Your task to perform on an android device: toggle notifications settings in the gmail app Image 0: 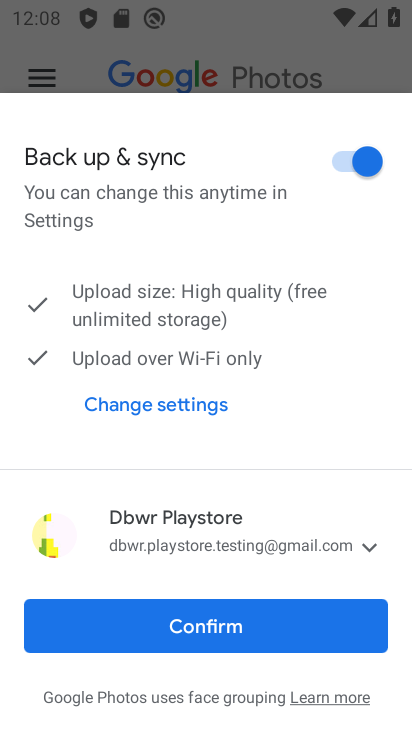
Step 0: press home button
Your task to perform on an android device: toggle notifications settings in the gmail app Image 1: 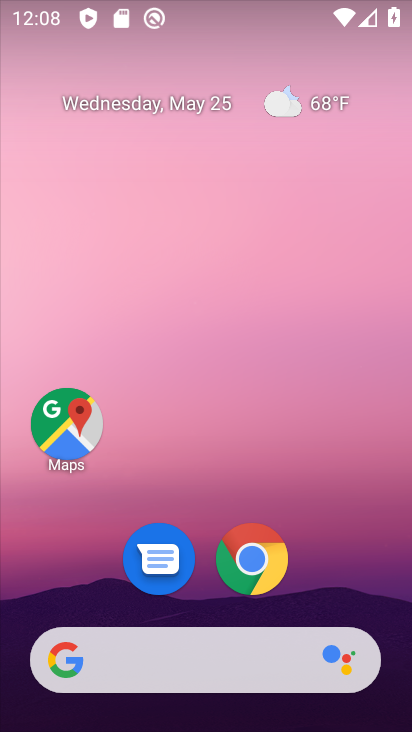
Step 1: drag from (353, 565) to (313, 7)
Your task to perform on an android device: toggle notifications settings in the gmail app Image 2: 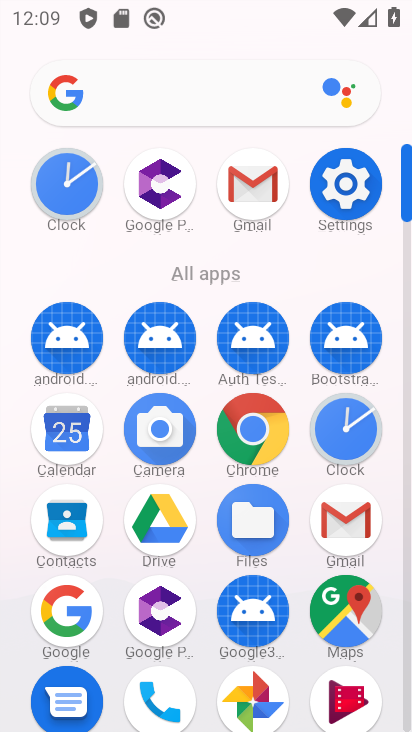
Step 2: click (341, 523)
Your task to perform on an android device: toggle notifications settings in the gmail app Image 3: 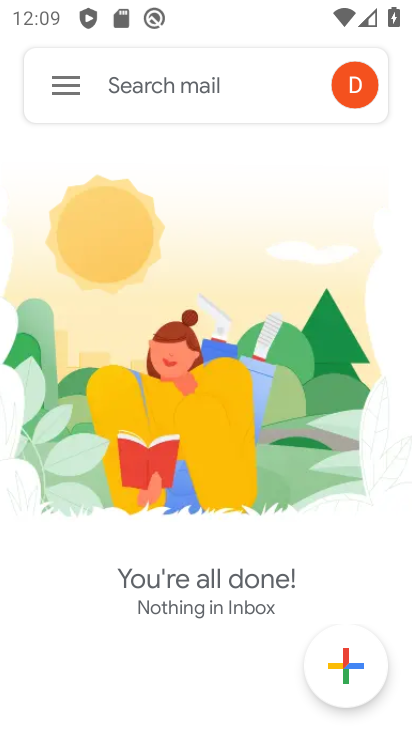
Step 3: click (71, 84)
Your task to perform on an android device: toggle notifications settings in the gmail app Image 4: 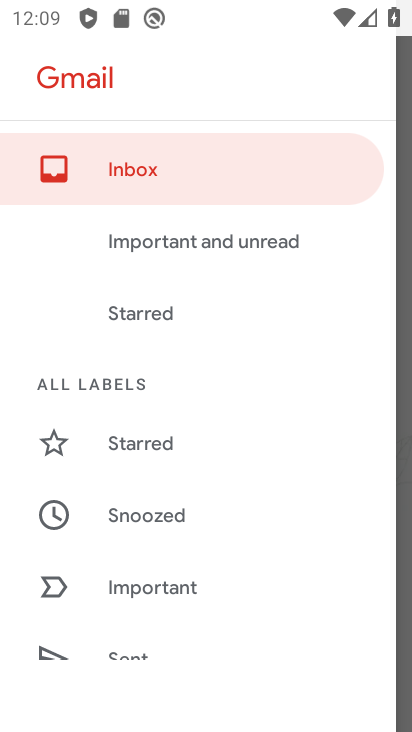
Step 4: drag from (251, 619) to (249, 187)
Your task to perform on an android device: toggle notifications settings in the gmail app Image 5: 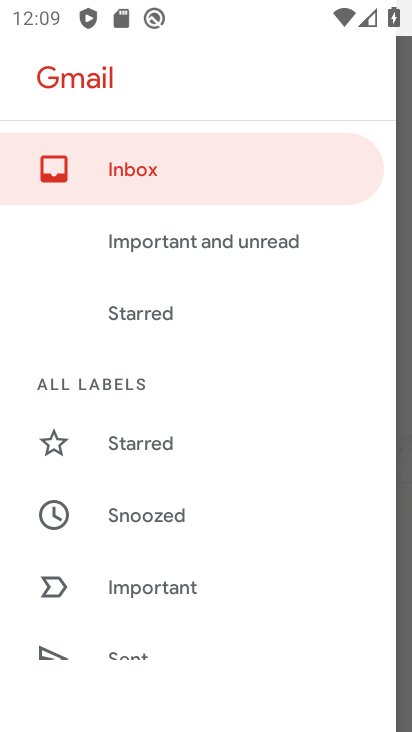
Step 5: drag from (224, 640) to (264, 161)
Your task to perform on an android device: toggle notifications settings in the gmail app Image 6: 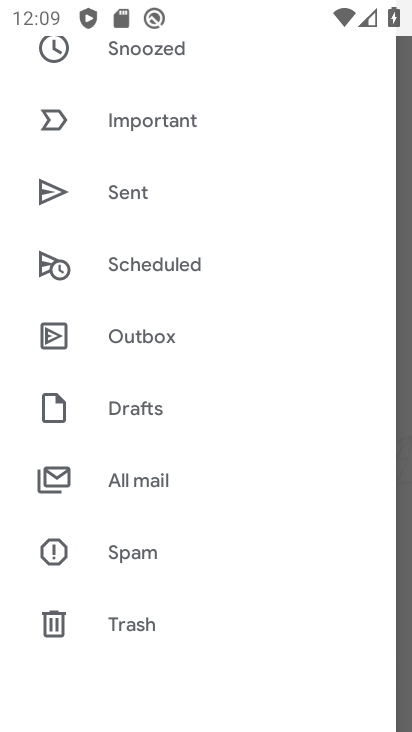
Step 6: drag from (207, 637) to (244, 190)
Your task to perform on an android device: toggle notifications settings in the gmail app Image 7: 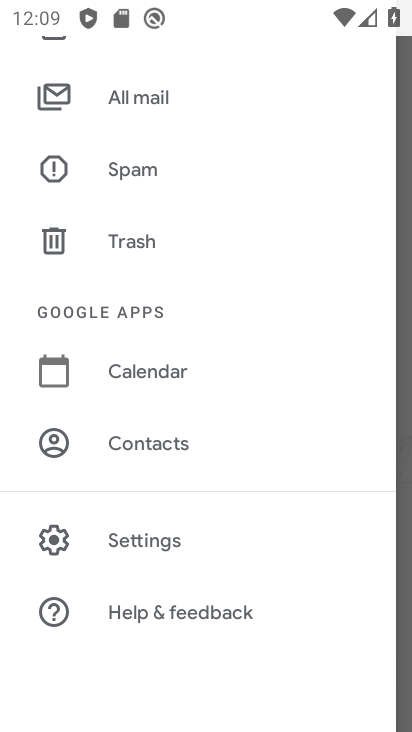
Step 7: click (101, 537)
Your task to perform on an android device: toggle notifications settings in the gmail app Image 8: 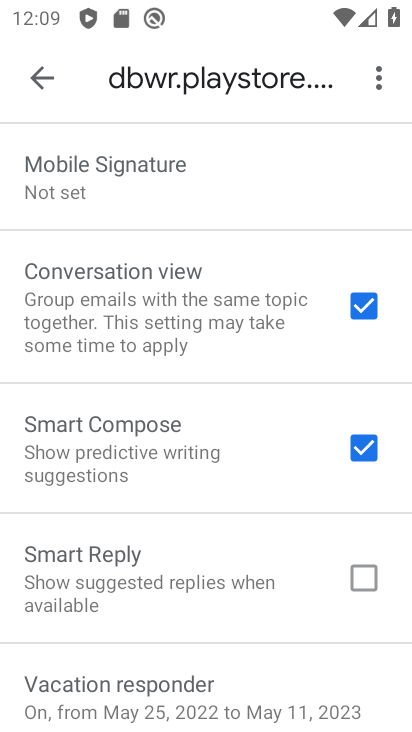
Step 8: drag from (258, 250) to (248, 594)
Your task to perform on an android device: toggle notifications settings in the gmail app Image 9: 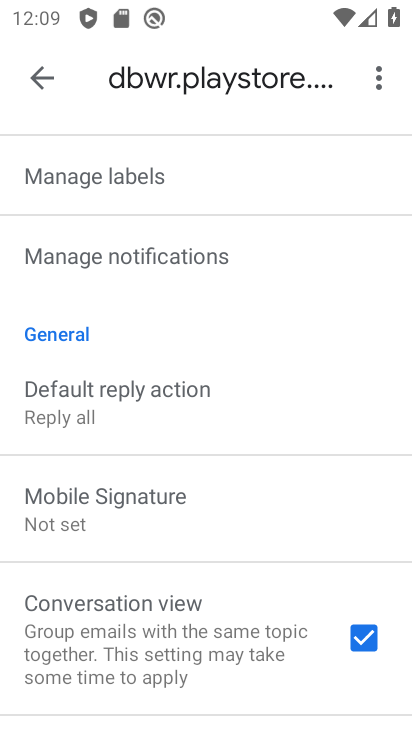
Step 9: click (113, 247)
Your task to perform on an android device: toggle notifications settings in the gmail app Image 10: 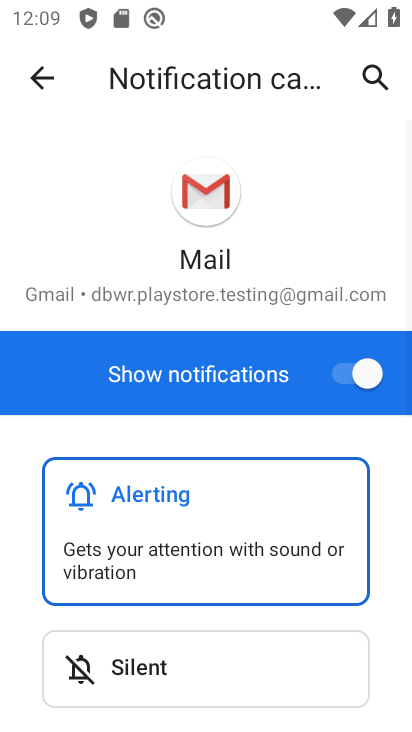
Step 10: click (339, 371)
Your task to perform on an android device: toggle notifications settings in the gmail app Image 11: 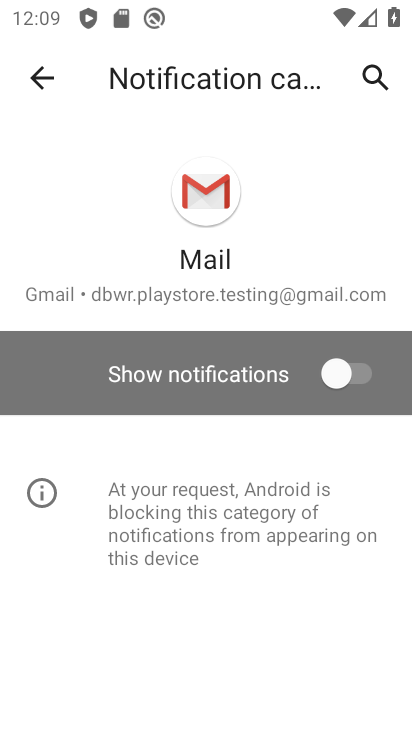
Step 11: task complete